Your task to perform on an android device: Show me recent news Image 0: 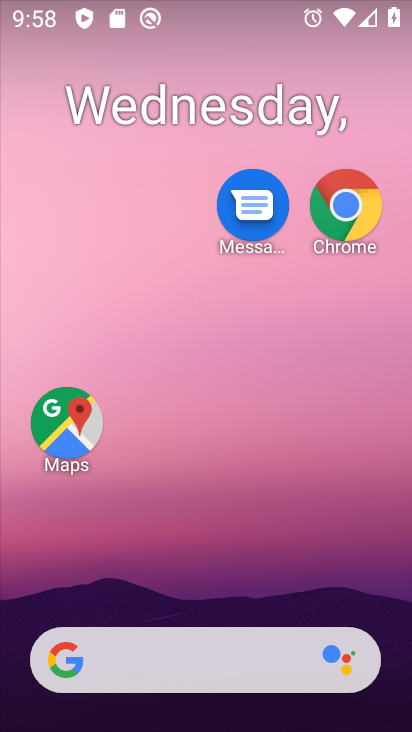
Step 0: drag from (230, 251) to (242, 62)
Your task to perform on an android device: Show me recent news Image 1: 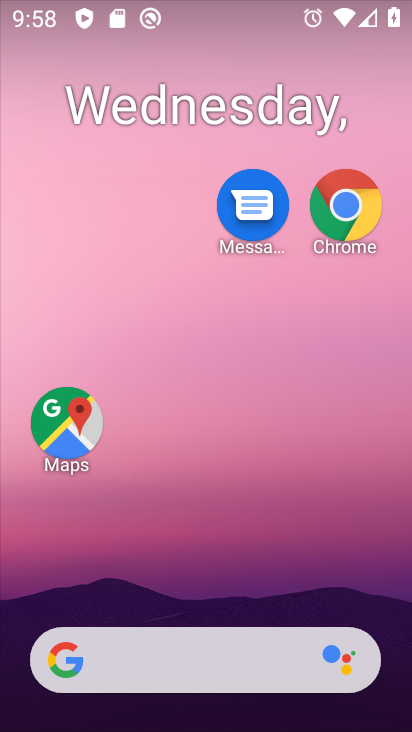
Step 1: drag from (214, 579) to (273, 0)
Your task to perform on an android device: Show me recent news Image 2: 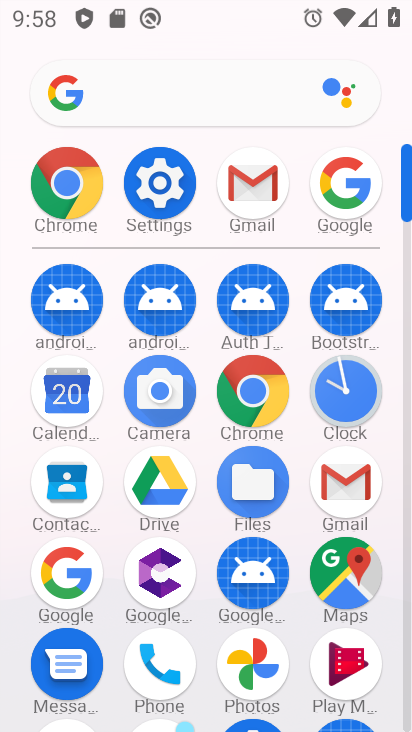
Step 2: click (247, 384)
Your task to perform on an android device: Show me recent news Image 3: 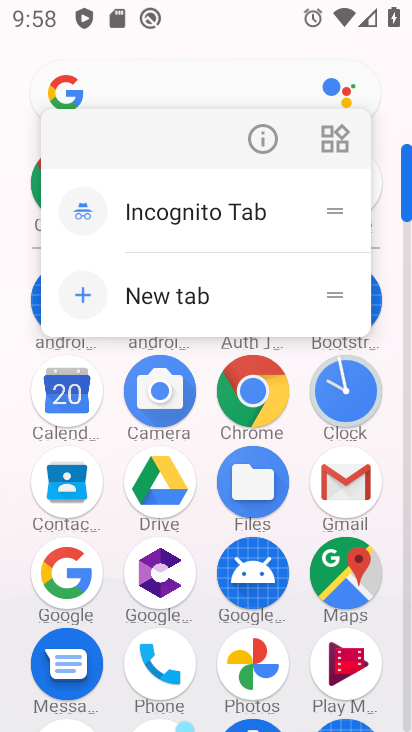
Step 3: click (269, 143)
Your task to perform on an android device: Show me recent news Image 4: 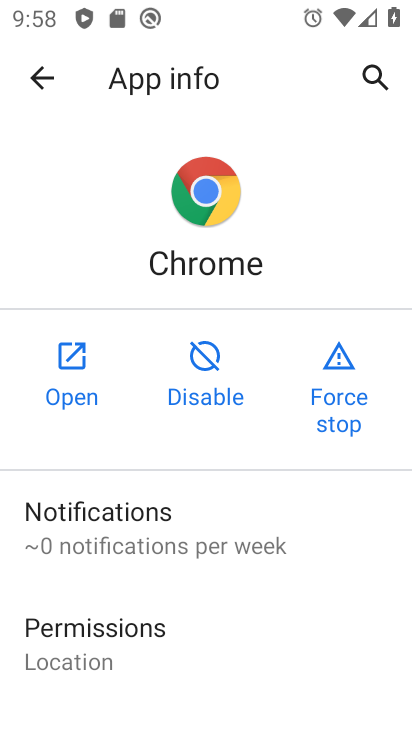
Step 4: click (35, 393)
Your task to perform on an android device: Show me recent news Image 5: 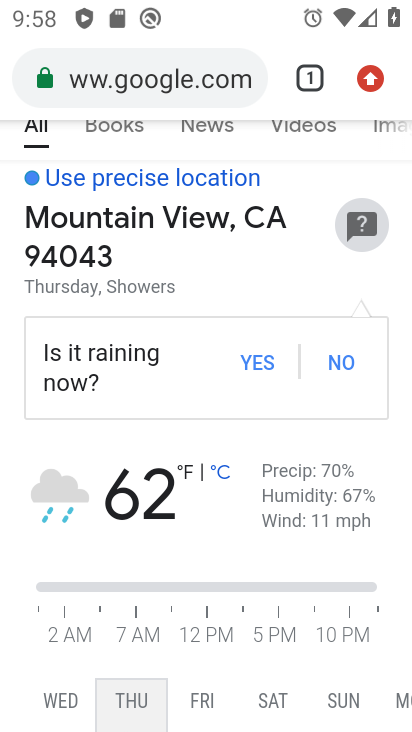
Step 5: drag from (249, 351) to (386, 514)
Your task to perform on an android device: Show me recent news Image 6: 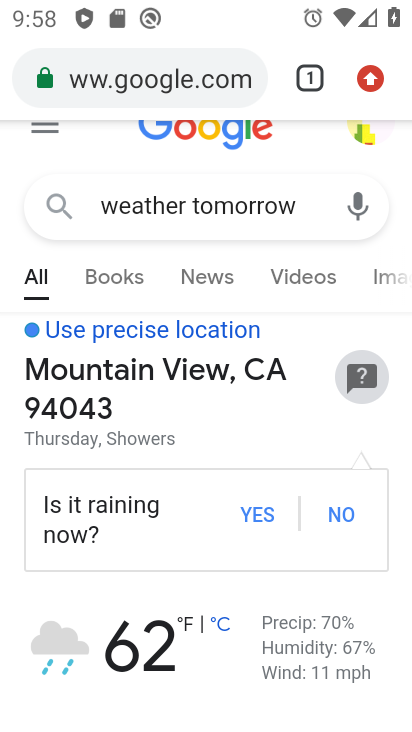
Step 6: click (165, 80)
Your task to perform on an android device: Show me recent news Image 7: 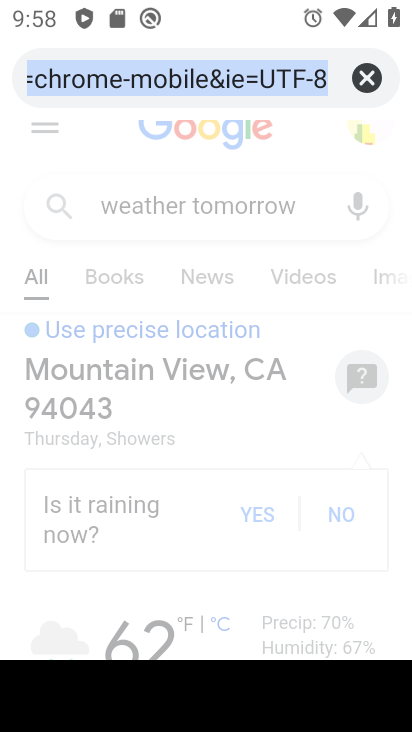
Step 7: click (369, 88)
Your task to perform on an android device: Show me recent news Image 8: 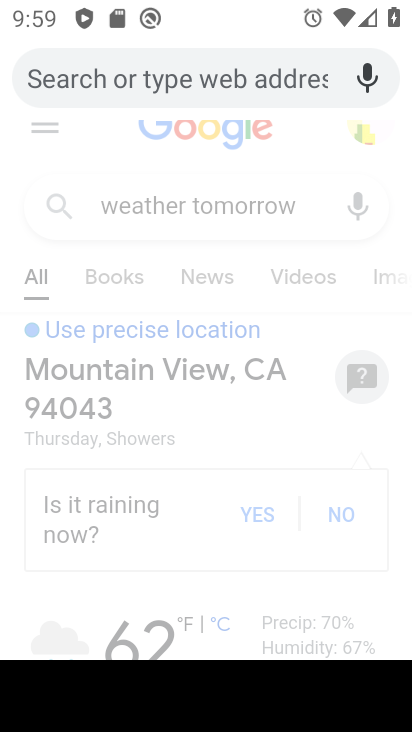
Step 8: type "recent news"
Your task to perform on an android device: Show me recent news Image 9: 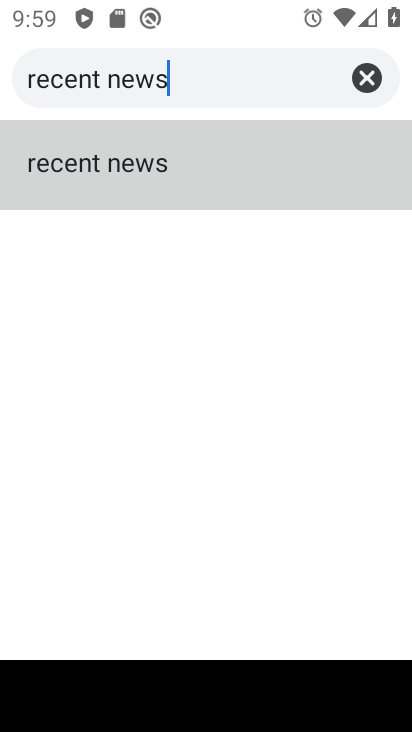
Step 9: click (134, 162)
Your task to perform on an android device: Show me recent news Image 10: 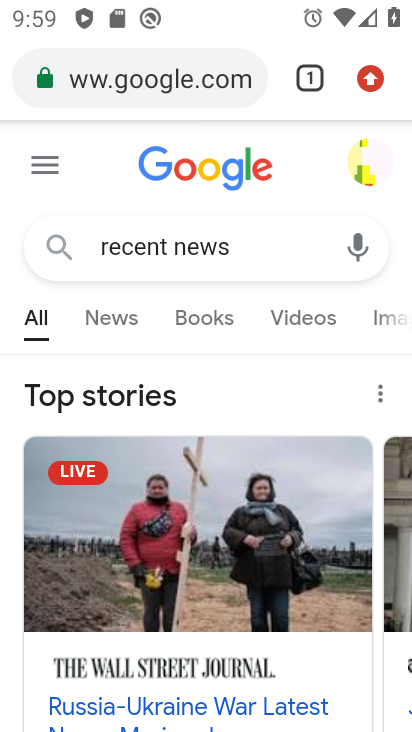
Step 10: task complete